Your task to perform on an android device: set the timer Image 0: 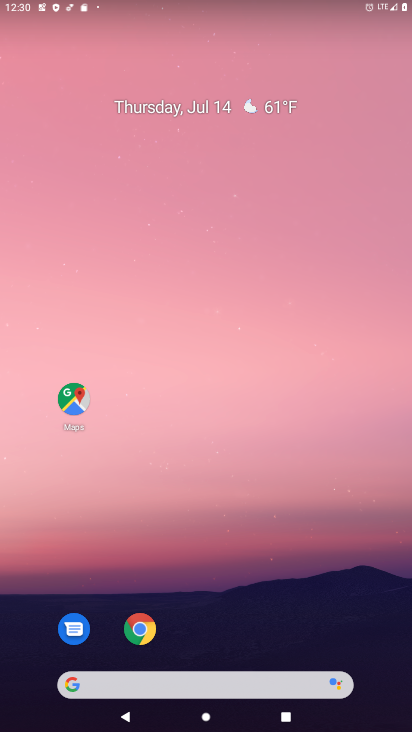
Step 0: drag from (271, 554) to (243, 101)
Your task to perform on an android device: set the timer Image 1: 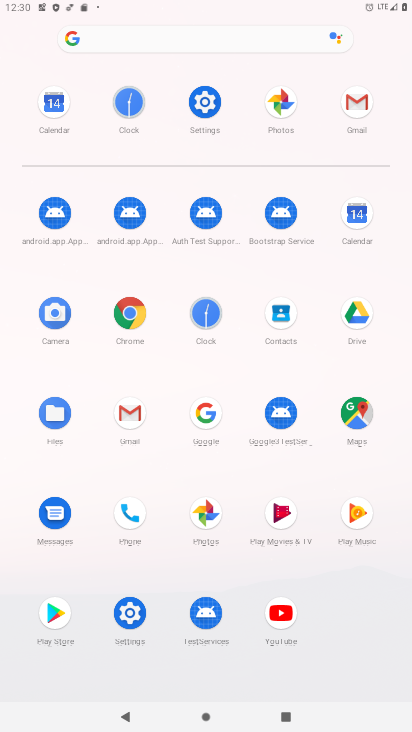
Step 1: click (208, 322)
Your task to perform on an android device: set the timer Image 2: 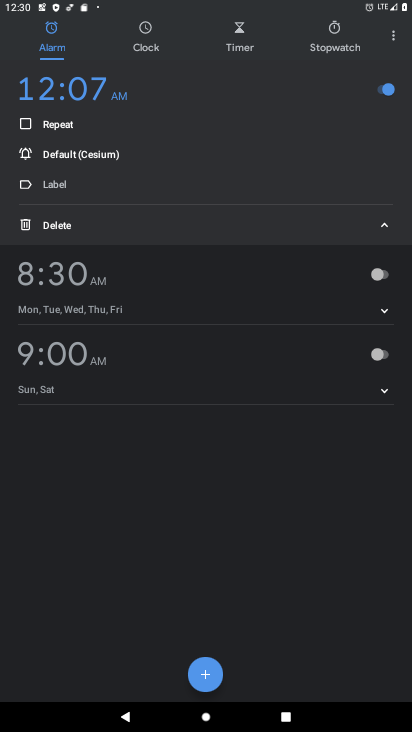
Step 2: click (245, 27)
Your task to perform on an android device: set the timer Image 3: 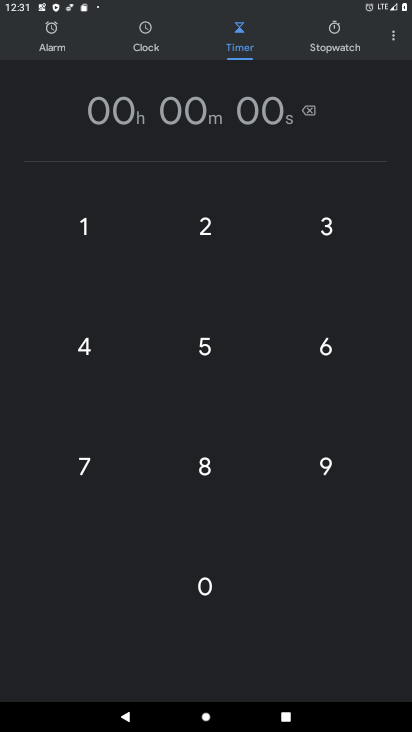
Step 3: click (85, 233)
Your task to perform on an android device: set the timer Image 4: 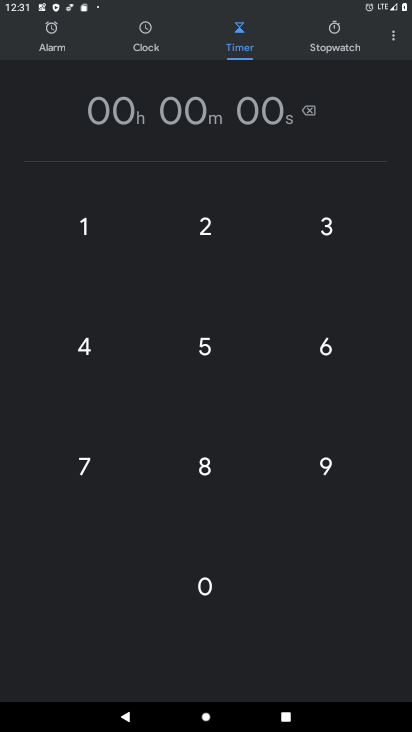
Step 4: click (85, 233)
Your task to perform on an android device: set the timer Image 5: 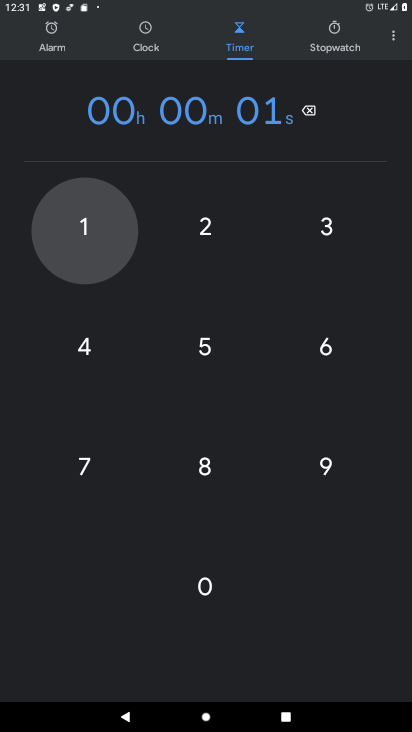
Step 5: click (85, 233)
Your task to perform on an android device: set the timer Image 6: 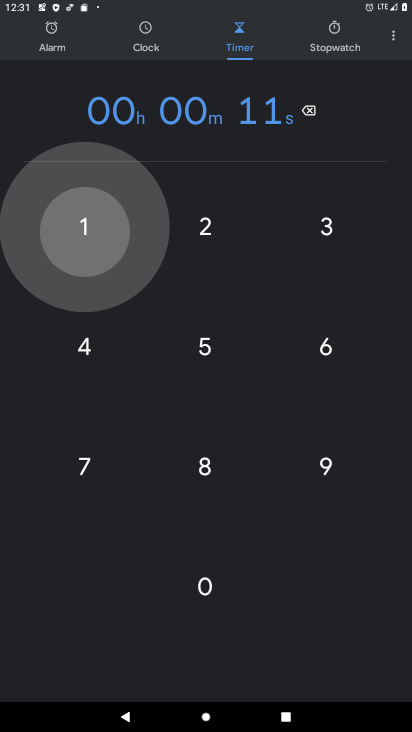
Step 6: click (85, 233)
Your task to perform on an android device: set the timer Image 7: 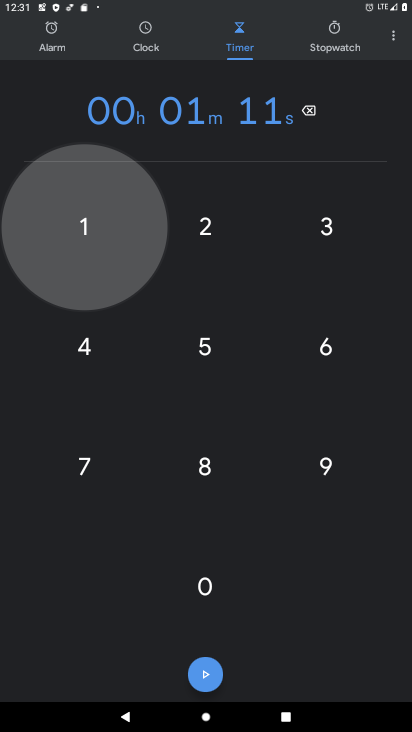
Step 7: click (85, 233)
Your task to perform on an android device: set the timer Image 8: 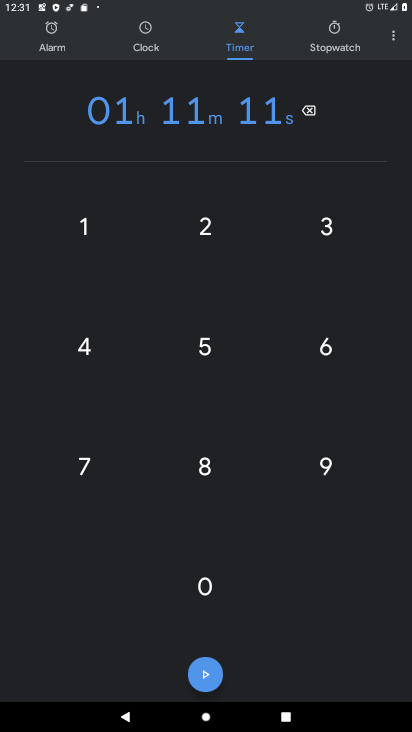
Step 8: click (85, 233)
Your task to perform on an android device: set the timer Image 9: 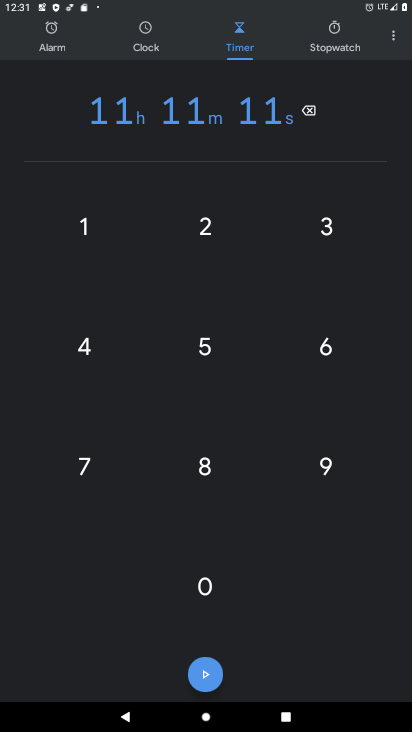
Step 9: task complete